Your task to perform on an android device: Search for vegetarian restaurants on Maps Image 0: 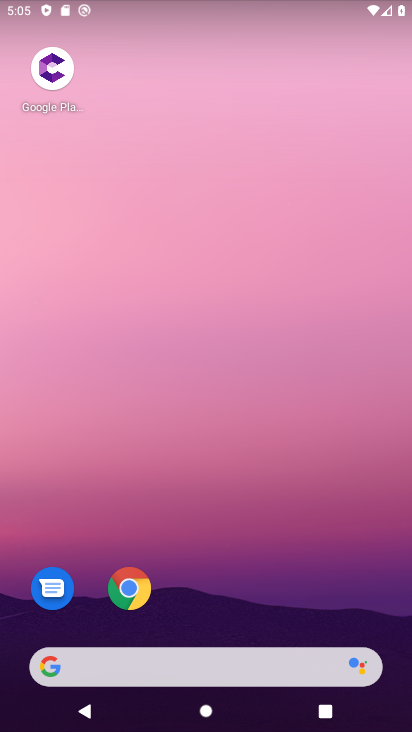
Step 0: drag from (207, 657) to (185, 114)
Your task to perform on an android device: Search for vegetarian restaurants on Maps Image 1: 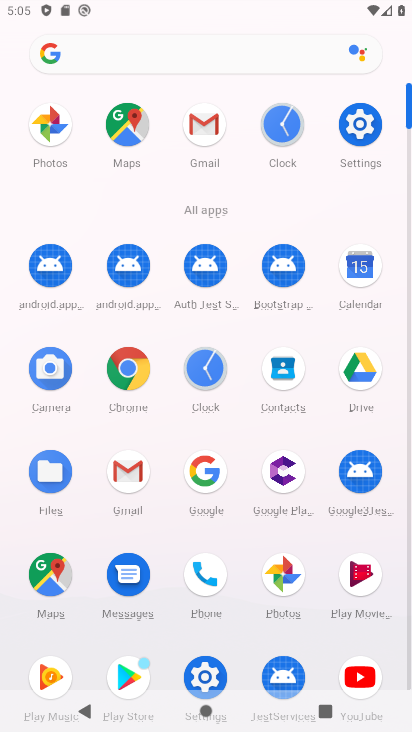
Step 1: click (66, 577)
Your task to perform on an android device: Search for vegetarian restaurants on Maps Image 2: 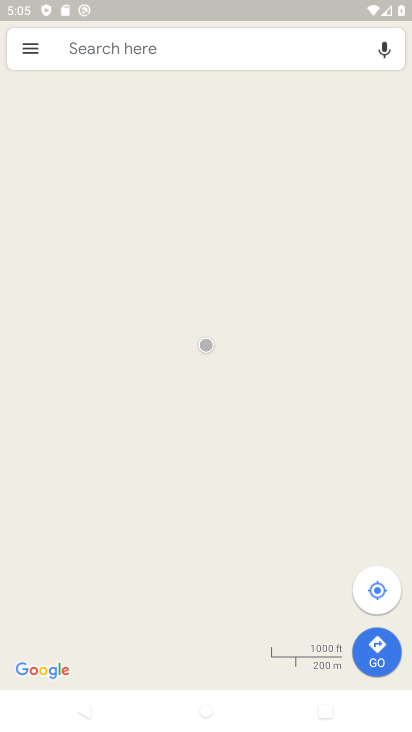
Step 2: click (153, 50)
Your task to perform on an android device: Search for vegetarian restaurants on Maps Image 3: 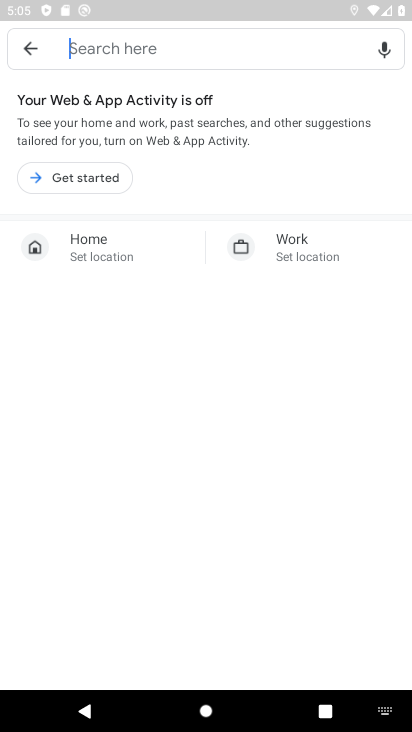
Step 3: type "vegetarian restaurant"
Your task to perform on an android device: Search for vegetarian restaurants on Maps Image 4: 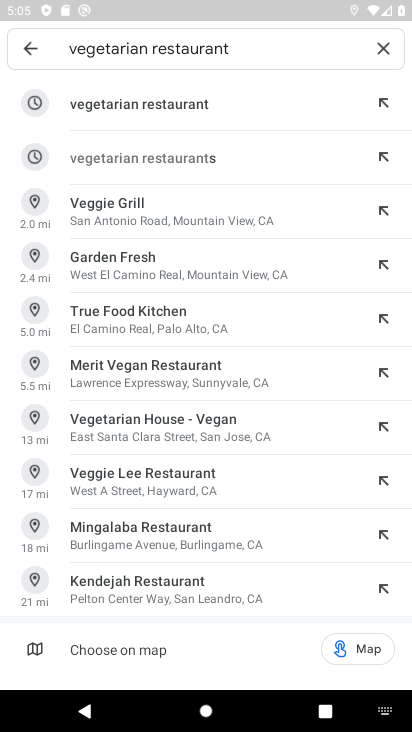
Step 4: click (211, 107)
Your task to perform on an android device: Search for vegetarian restaurants on Maps Image 5: 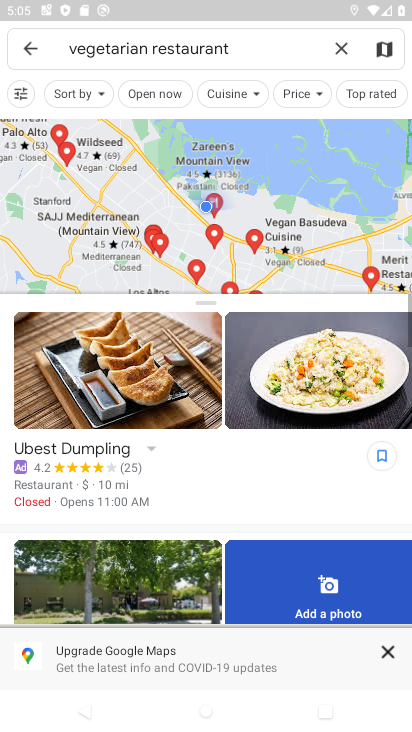
Step 5: task complete